Your task to perform on an android device: refresh tabs in the chrome app Image 0: 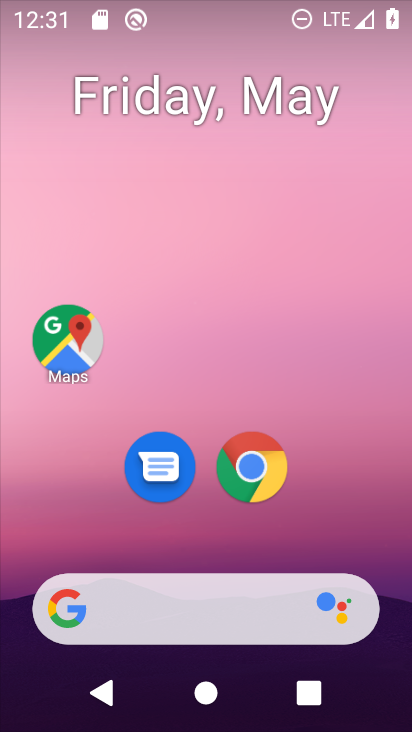
Step 0: drag from (329, 584) to (382, 59)
Your task to perform on an android device: refresh tabs in the chrome app Image 1: 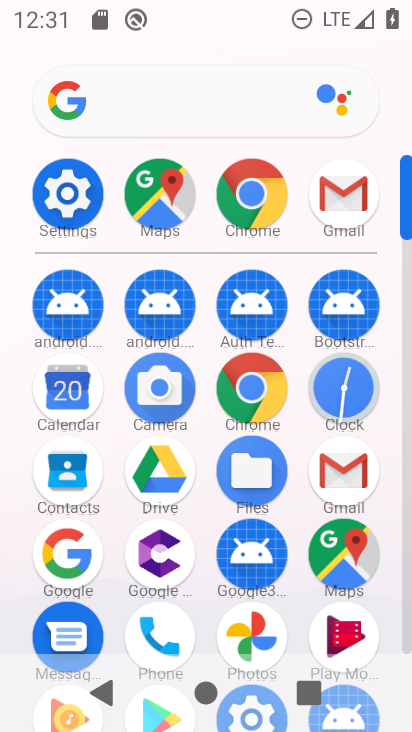
Step 1: click (271, 384)
Your task to perform on an android device: refresh tabs in the chrome app Image 2: 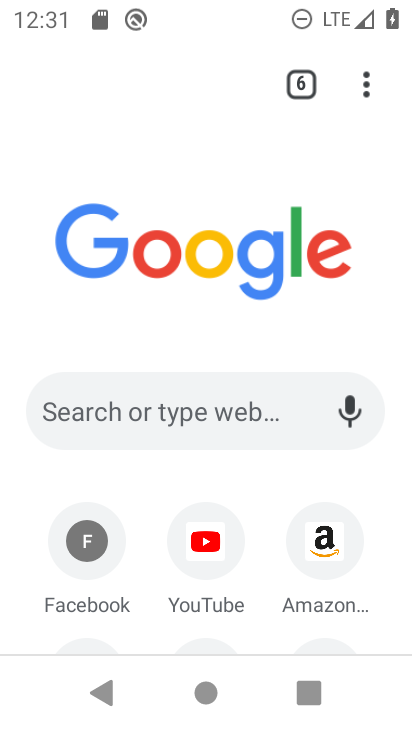
Step 2: click (367, 86)
Your task to perform on an android device: refresh tabs in the chrome app Image 3: 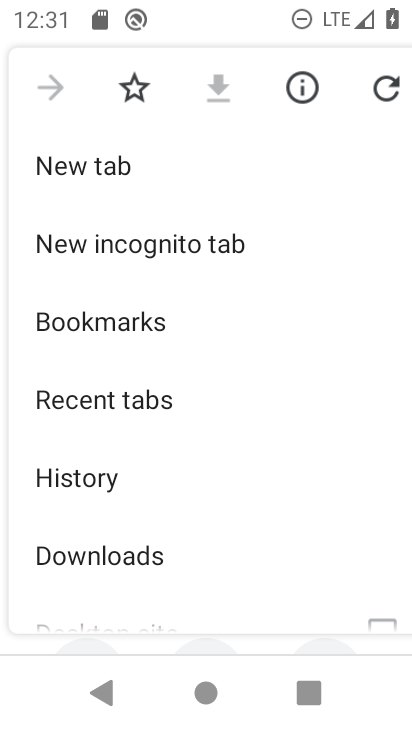
Step 3: click (388, 91)
Your task to perform on an android device: refresh tabs in the chrome app Image 4: 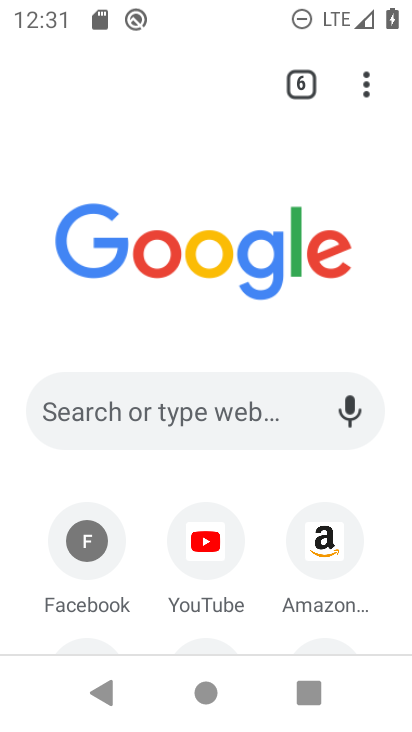
Step 4: task complete